Your task to perform on an android device: Go to battery settings Image 0: 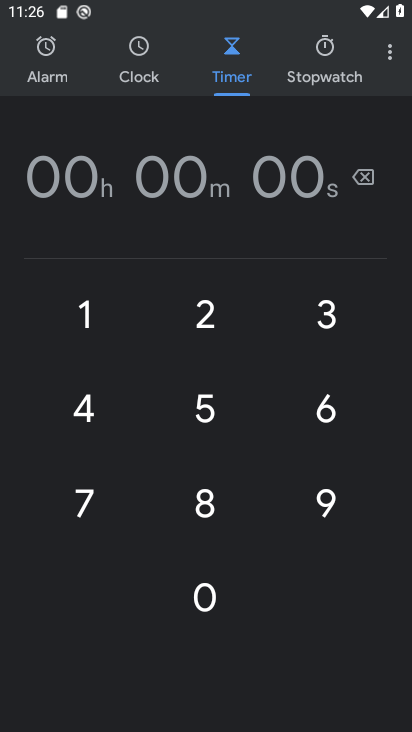
Step 0: drag from (227, 513) to (294, 40)
Your task to perform on an android device: Go to battery settings Image 1: 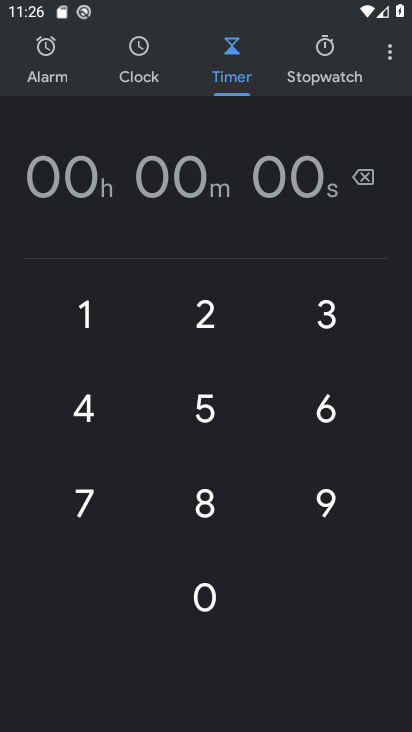
Step 1: press home button
Your task to perform on an android device: Go to battery settings Image 2: 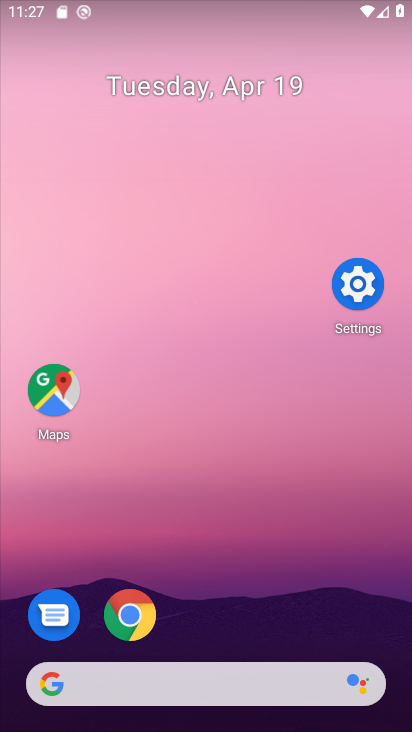
Step 2: drag from (211, 489) to (236, 62)
Your task to perform on an android device: Go to battery settings Image 3: 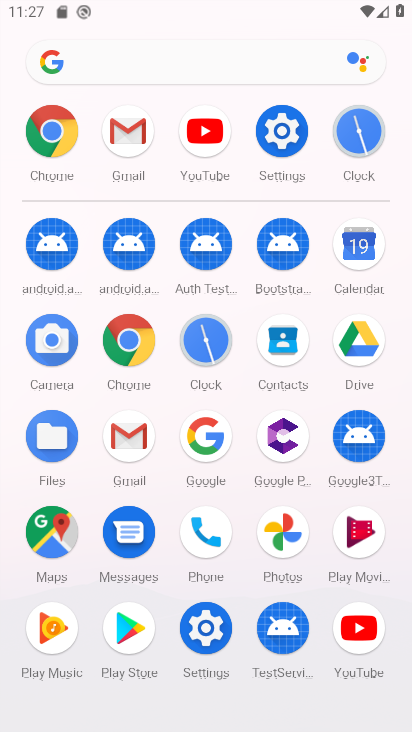
Step 3: click (278, 135)
Your task to perform on an android device: Go to battery settings Image 4: 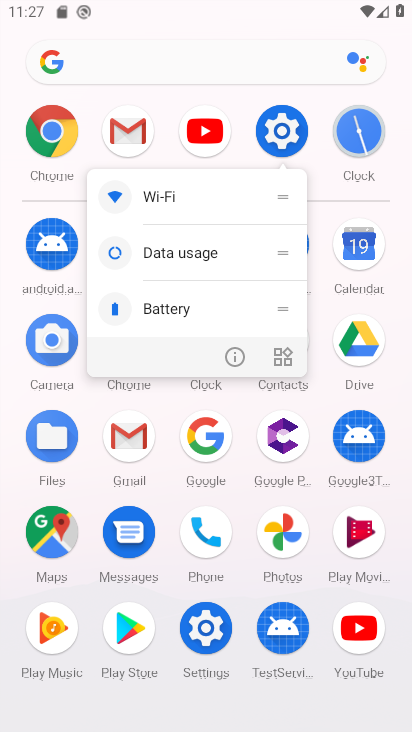
Step 4: click (234, 353)
Your task to perform on an android device: Go to battery settings Image 5: 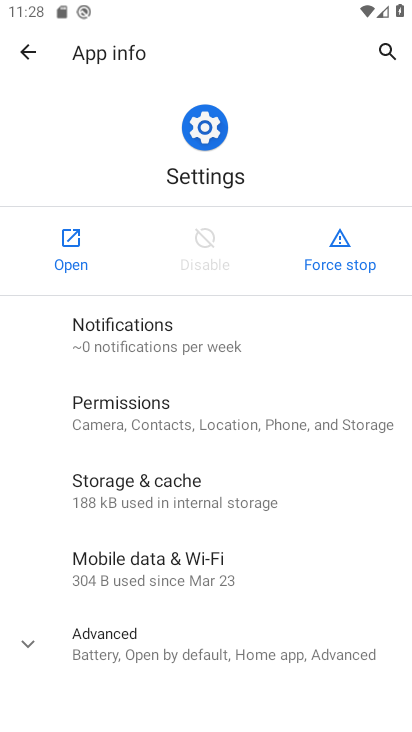
Step 5: click (62, 242)
Your task to perform on an android device: Go to battery settings Image 6: 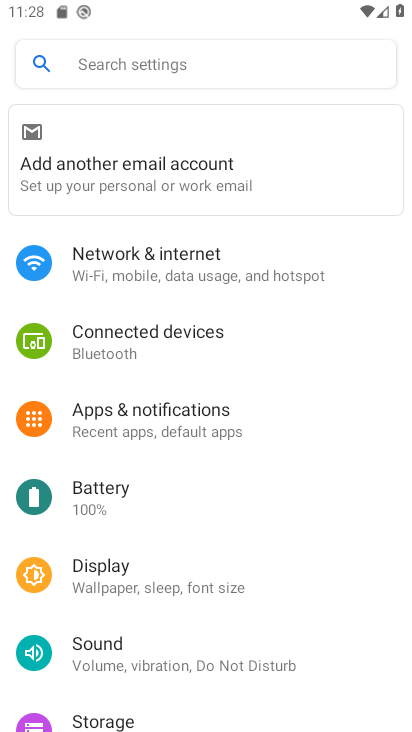
Step 6: click (127, 493)
Your task to perform on an android device: Go to battery settings Image 7: 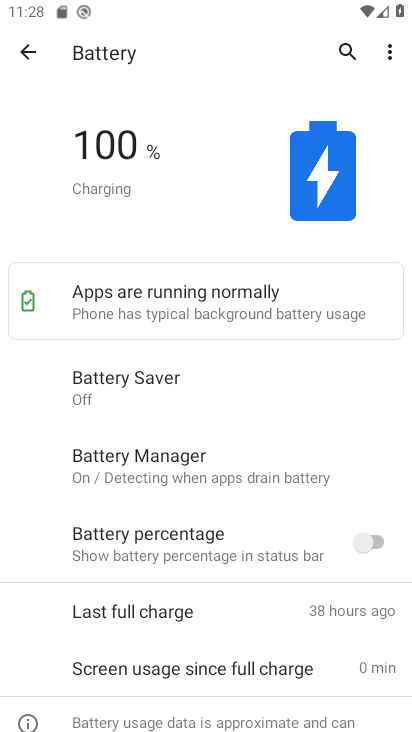
Step 7: drag from (225, 126) to (226, 380)
Your task to perform on an android device: Go to battery settings Image 8: 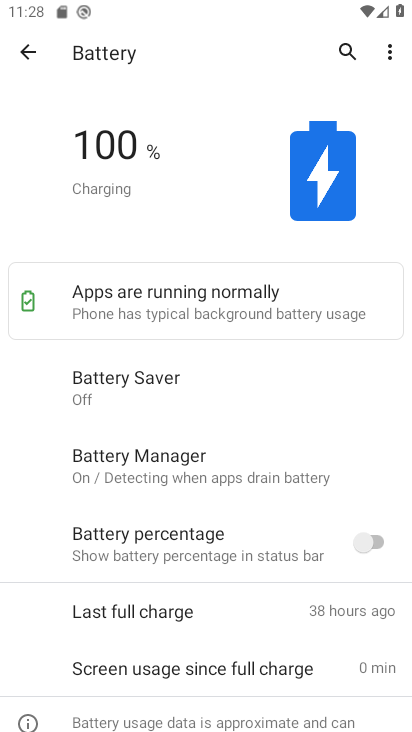
Step 8: click (391, 55)
Your task to perform on an android device: Go to battery settings Image 9: 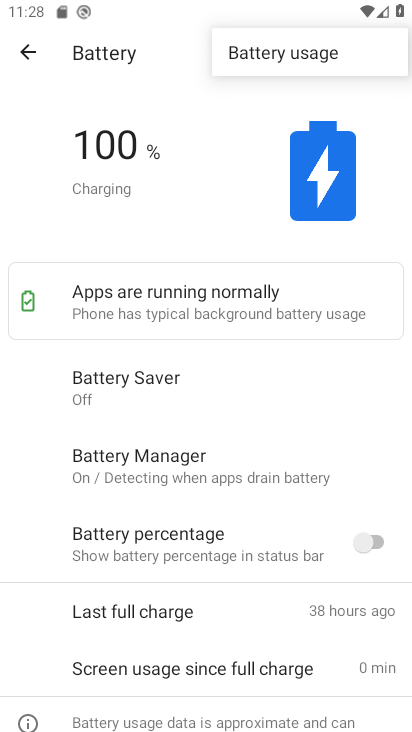
Step 9: click (187, 247)
Your task to perform on an android device: Go to battery settings Image 10: 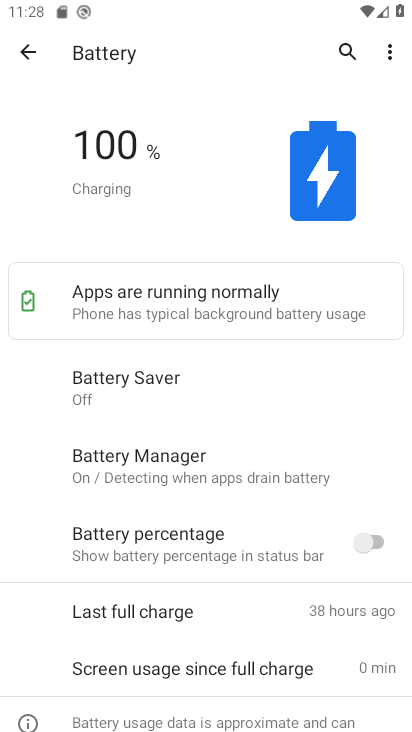
Step 10: task complete